Your task to perform on an android device: change text size in settings app Image 0: 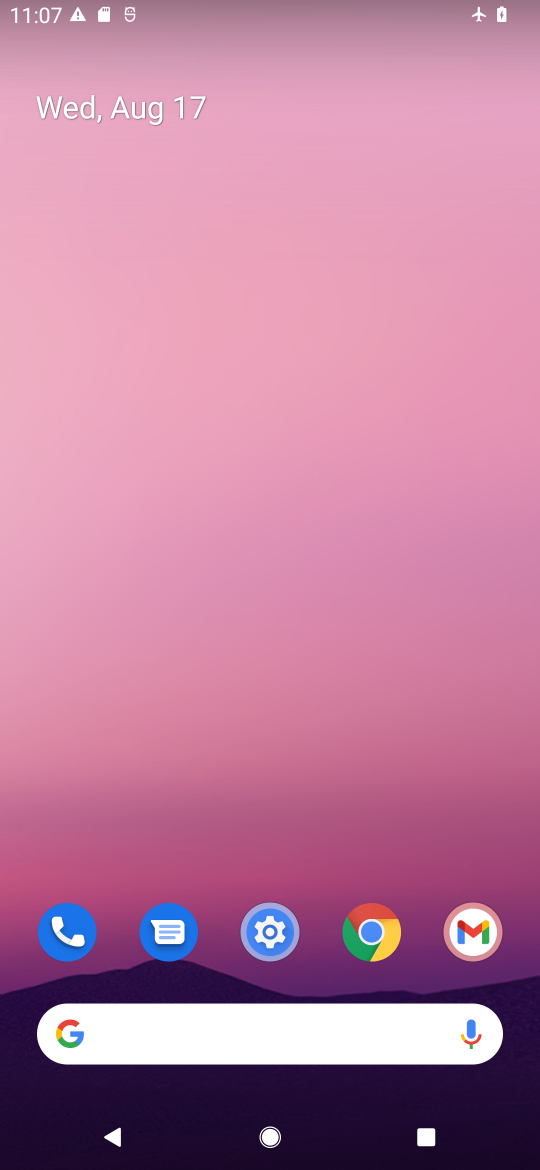
Step 0: click (283, 936)
Your task to perform on an android device: change text size in settings app Image 1: 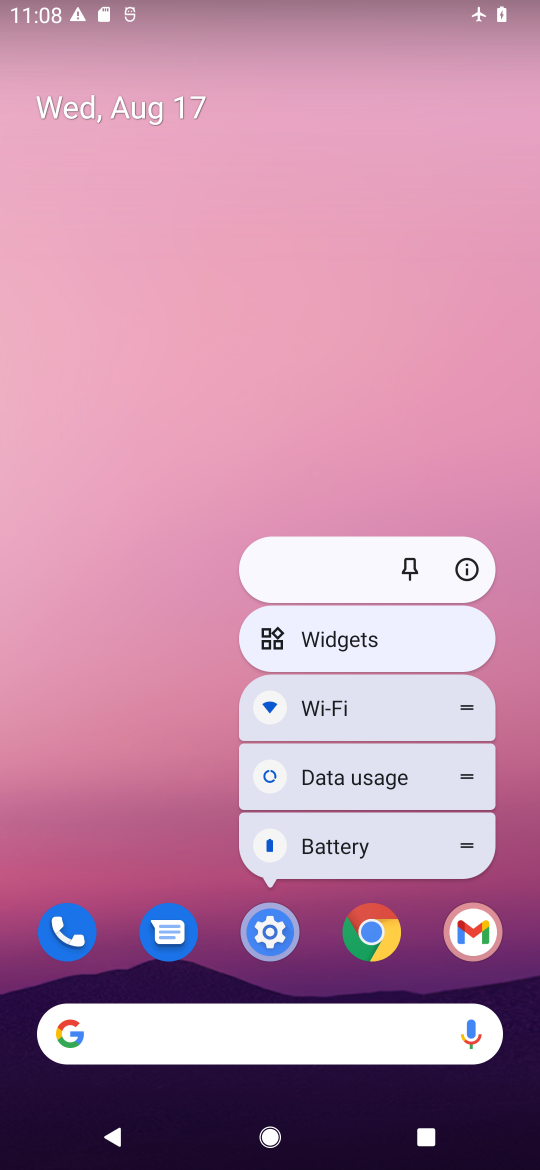
Step 1: click (289, 935)
Your task to perform on an android device: change text size in settings app Image 2: 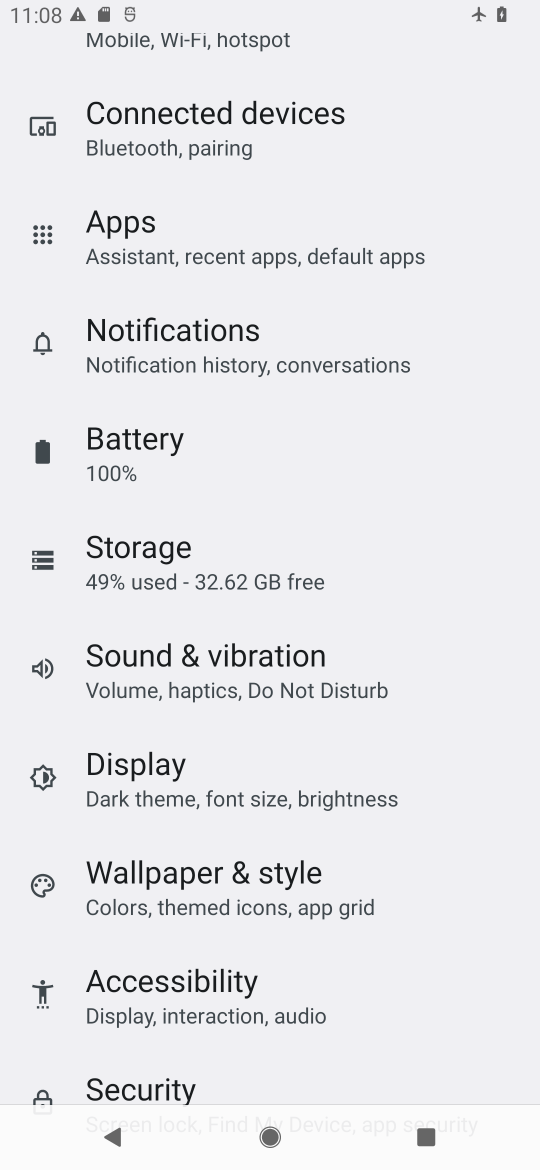
Step 2: drag from (238, 417) to (238, 841)
Your task to perform on an android device: change text size in settings app Image 3: 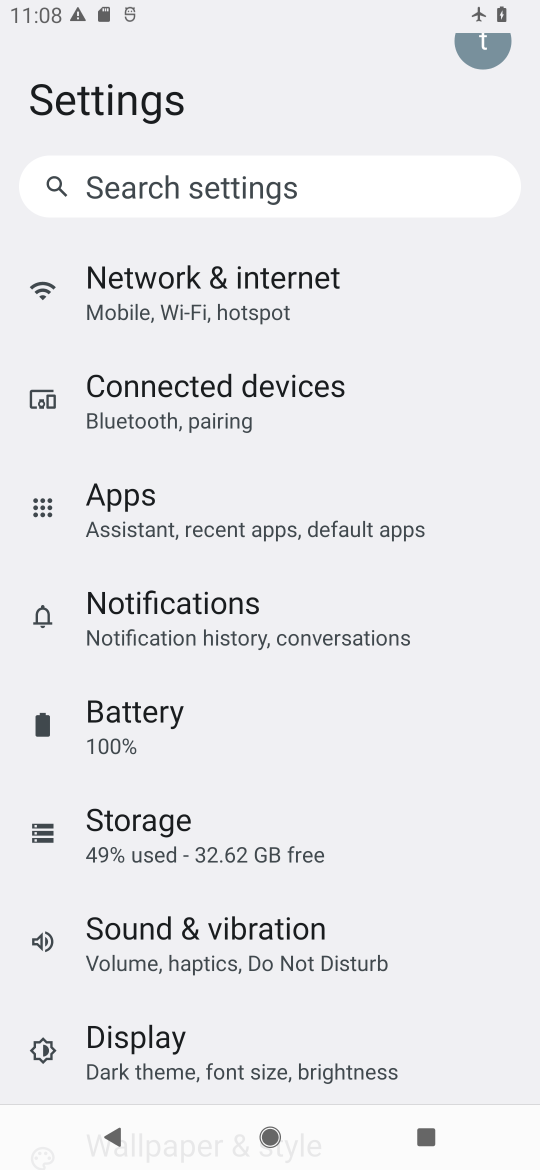
Step 3: drag from (226, 357) to (226, 896)
Your task to perform on an android device: change text size in settings app Image 4: 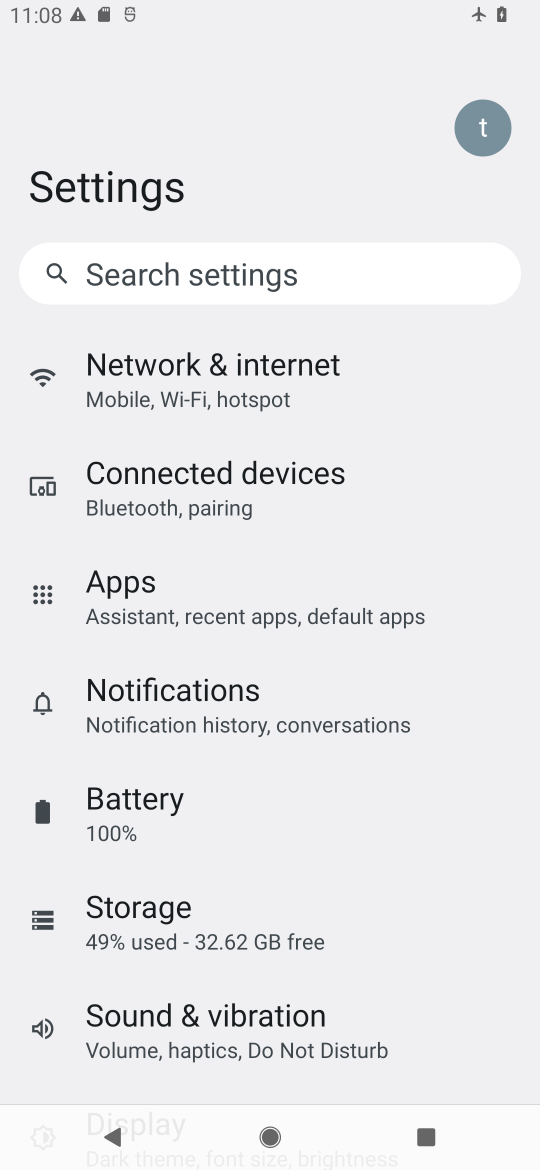
Step 4: drag from (227, 955) to (231, 391)
Your task to perform on an android device: change text size in settings app Image 5: 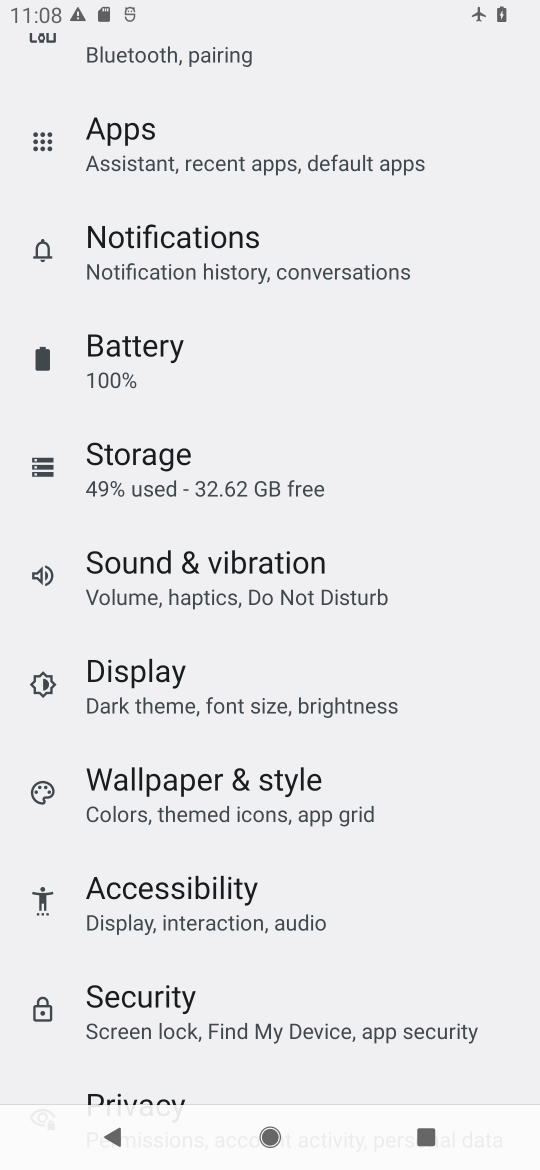
Step 5: click (227, 683)
Your task to perform on an android device: change text size in settings app Image 6: 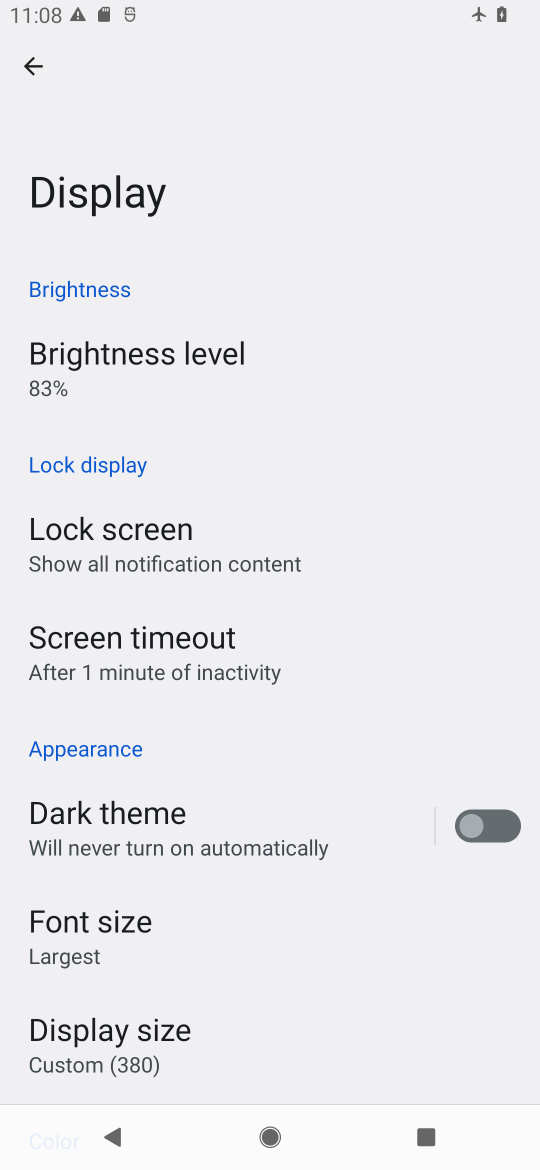
Step 6: click (153, 934)
Your task to perform on an android device: change text size in settings app Image 7: 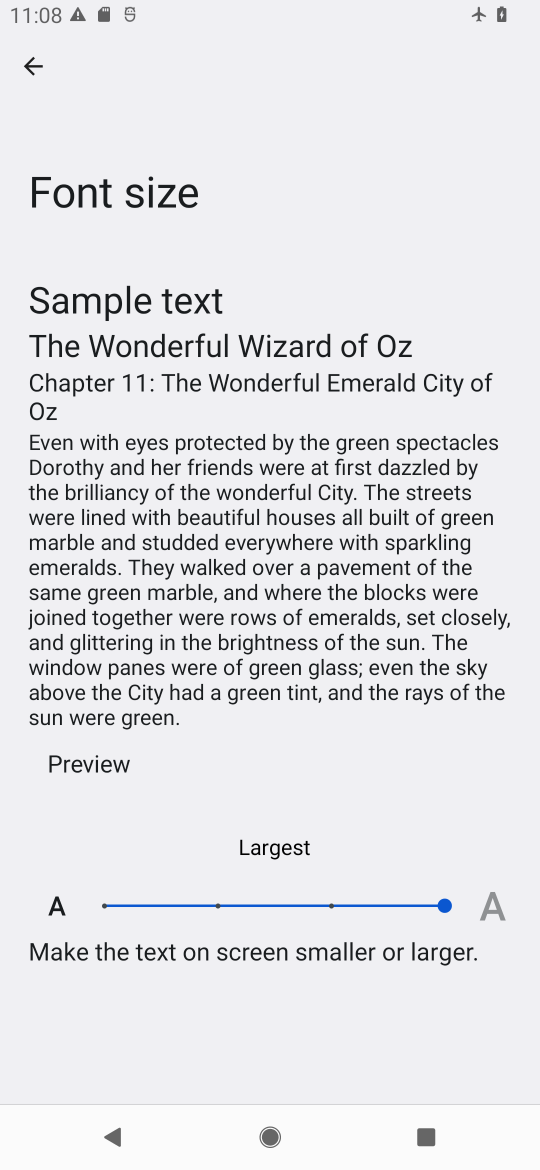
Step 7: click (365, 923)
Your task to perform on an android device: change text size in settings app Image 8: 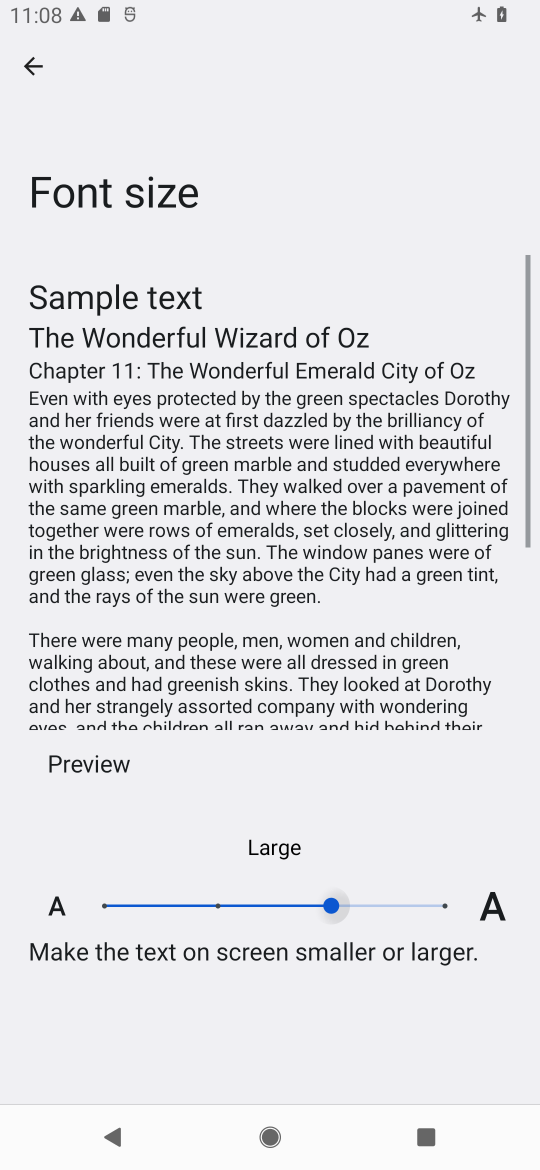
Step 8: task complete